Your task to perform on an android device: Open Chrome and go to settings Image 0: 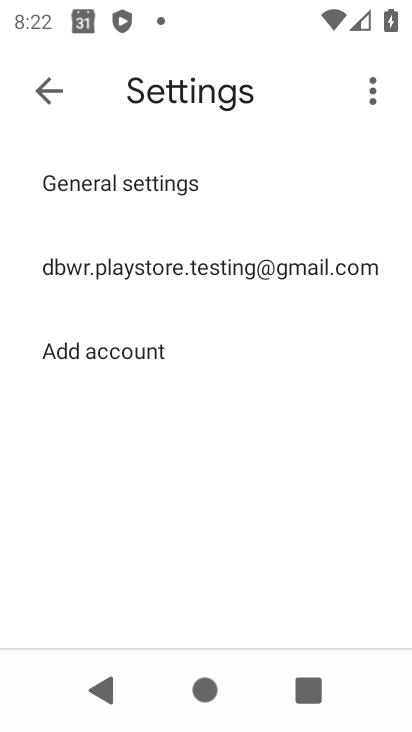
Step 0: press home button
Your task to perform on an android device: Open Chrome and go to settings Image 1: 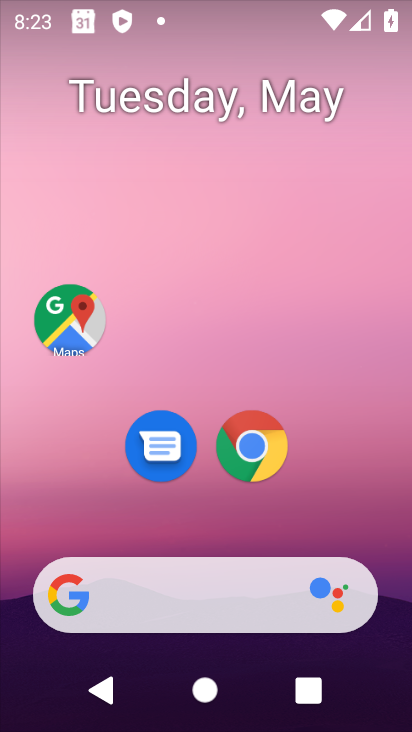
Step 1: click (259, 452)
Your task to perform on an android device: Open Chrome and go to settings Image 2: 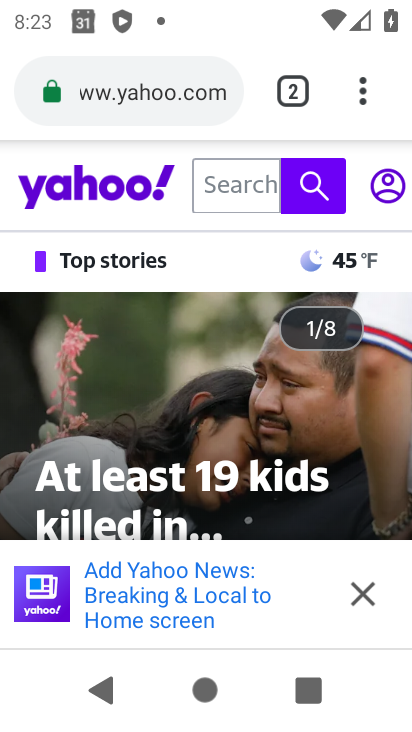
Step 2: click (368, 89)
Your task to perform on an android device: Open Chrome and go to settings Image 3: 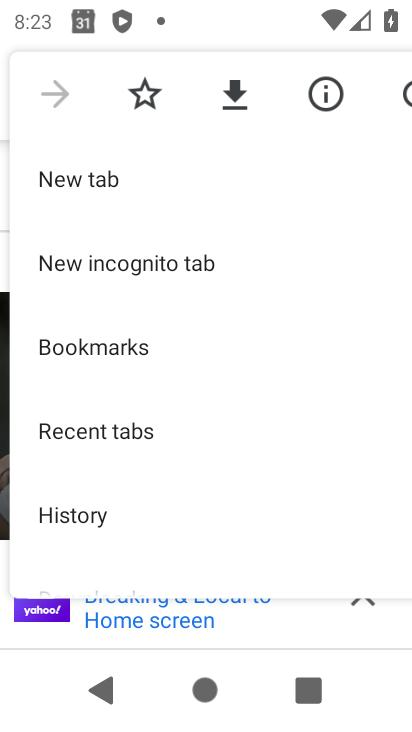
Step 3: drag from (184, 455) to (195, 63)
Your task to perform on an android device: Open Chrome and go to settings Image 4: 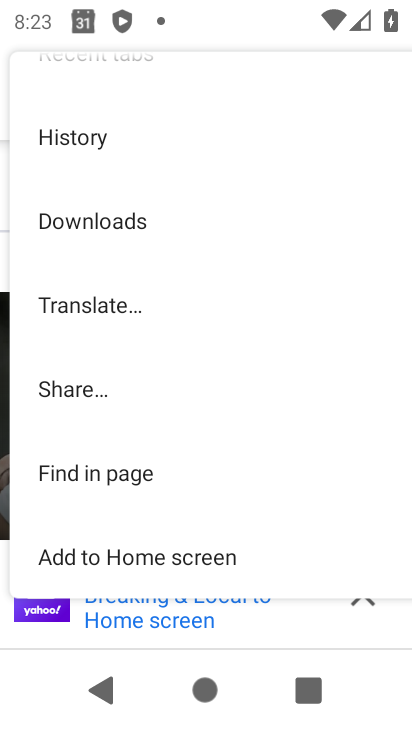
Step 4: drag from (177, 506) to (191, 86)
Your task to perform on an android device: Open Chrome and go to settings Image 5: 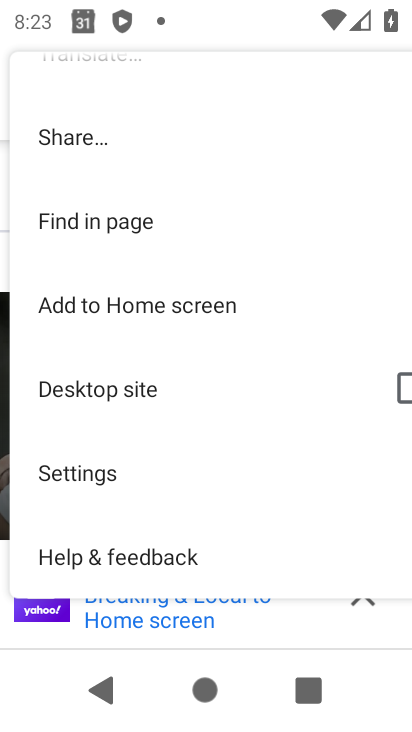
Step 5: click (101, 472)
Your task to perform on an android device: Open Chrome and go to settings Image 6: 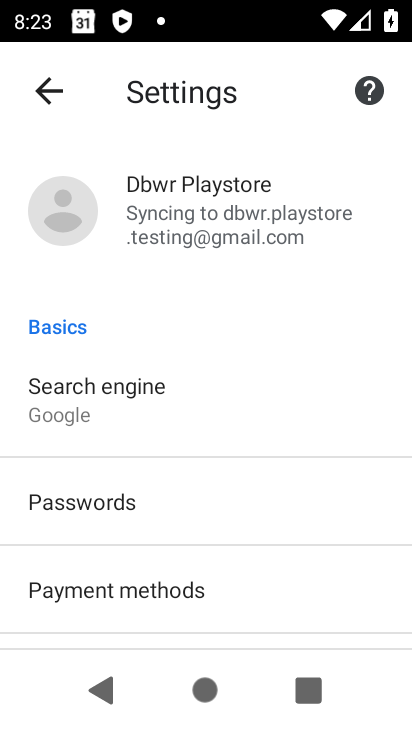
Step 6: task complete